Your task to perform on an android device: toggle airplane mode Image 0: 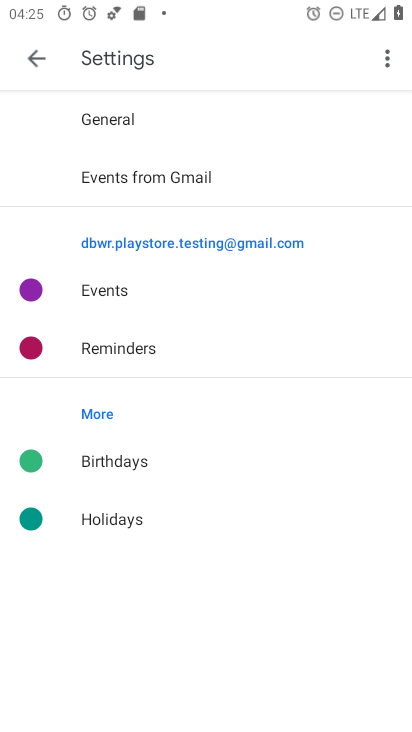
Step 0: press home button
Your task to perform on an android device: toggle airplane mode Image 1: 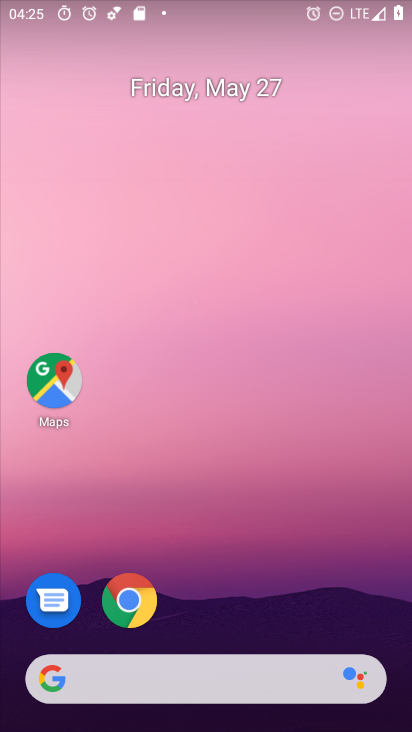
Step 1: drag from (219, 725) to (161, 106)
Your task to perform on an android device: toggle airplane mode Image 2: 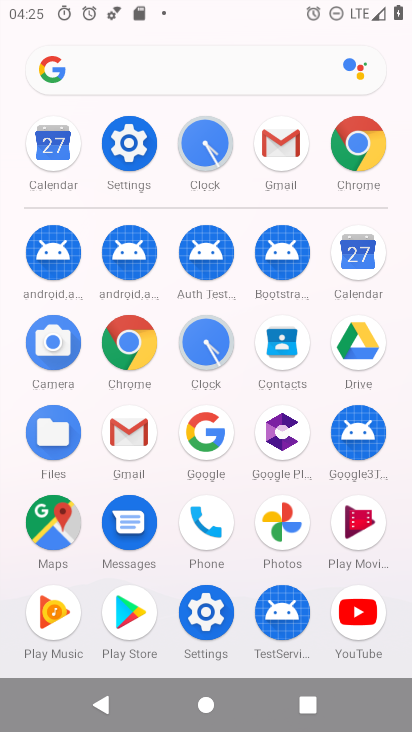
Step 2: click (134, 138)
Your task to perform on an android device: toggle airplane mode Image 3: 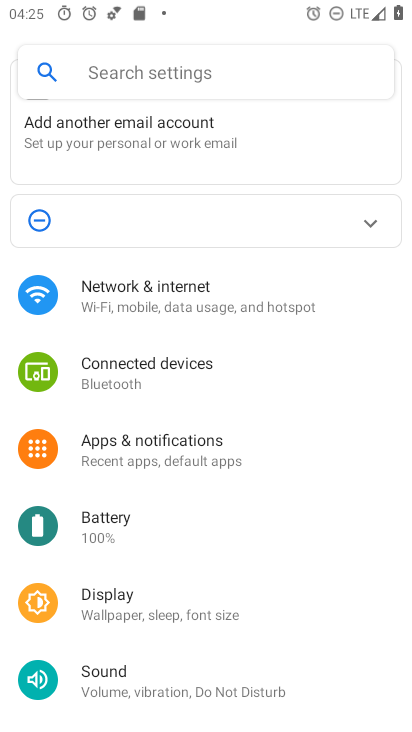
Step 3: click (131, 292)
Your task to perform on an android device: toggle airplane mode Image 4: 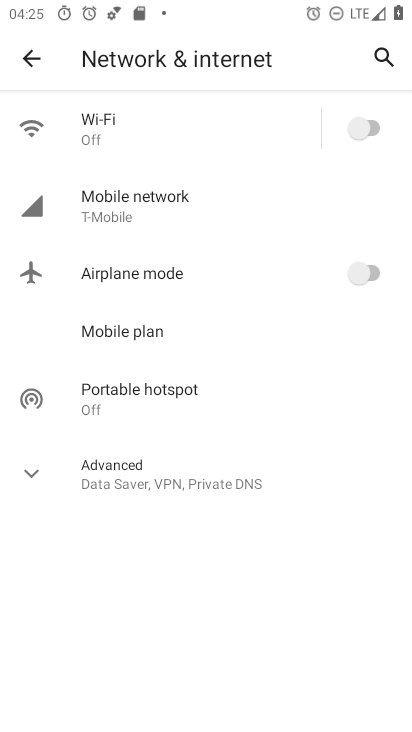
Step 4: click (376, 276)
Your task to perform on an android device: toggle airplane mode Image 5: 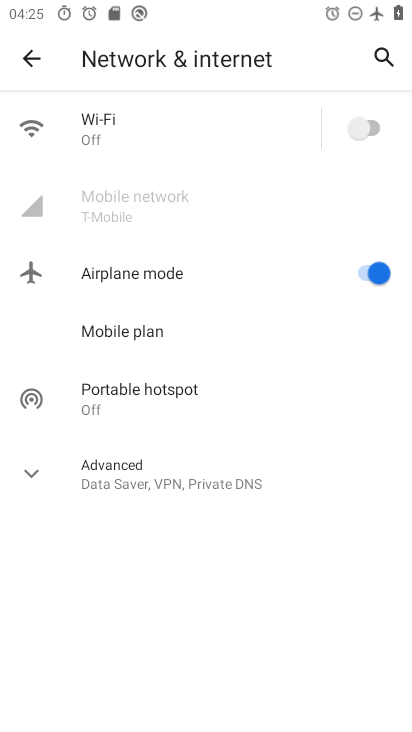
Step 5: task complete